Your task to perform on an android device: open a bookmark in the chrome app Image 0: 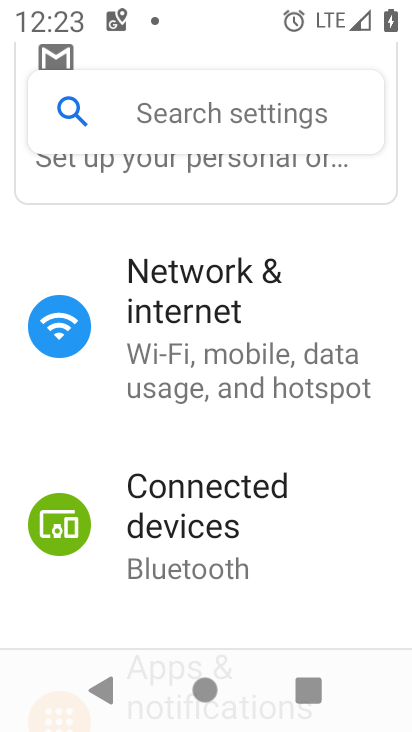
Step 0: drag from (200, 519) to (316, 68)
Your task to perform on an android device: open a bookmark in the chrome app Image 1: 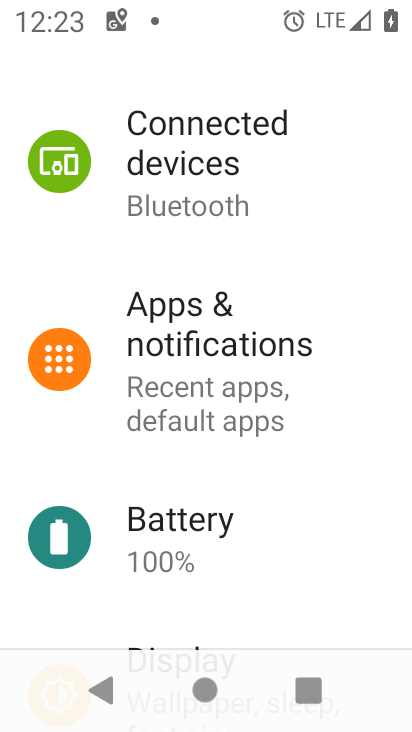
Step 1: press home button
Your task to perform on an android device: open a bookmark in the chrome app Image 2: 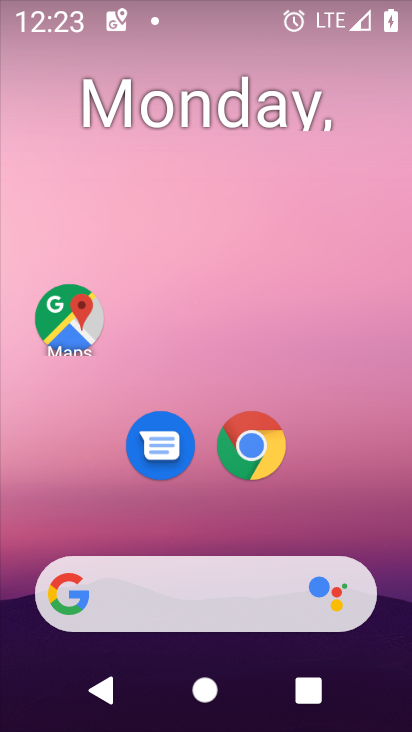
Step 2: drag from (218, 503) to (214, 26)
Your task to perform on an android device: open a bookmark in the chrome app Image 3: 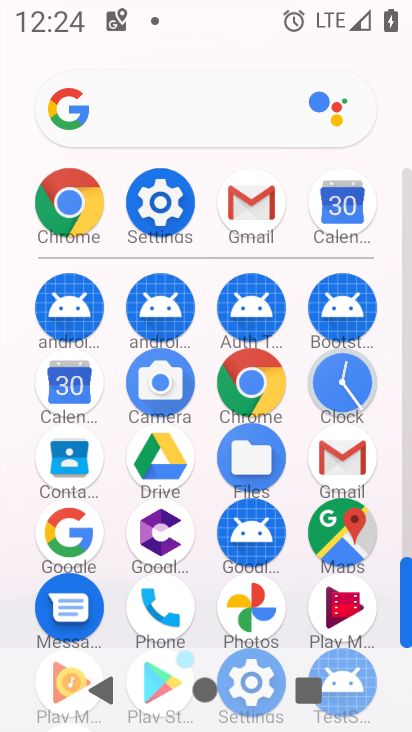
Step 3: click (67, 205)
Your task to perform on an android device: open a bookmark in the chrome app Image 4: 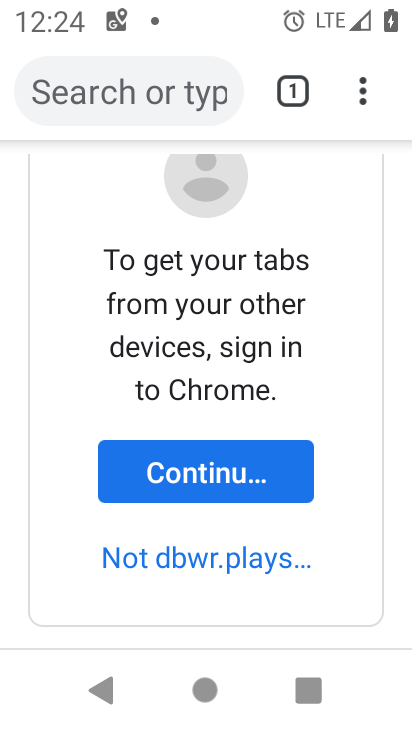
Step 4: task complete